Your task to perform on an android device: refresh tabs in the chrome app Image 0: 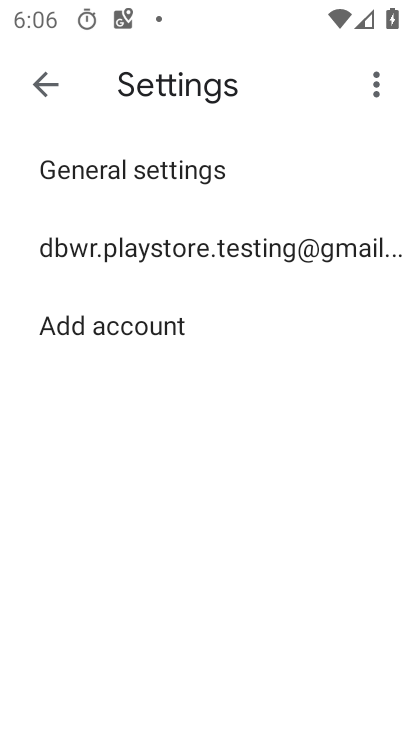
Step 0: press home button
Your task to perform on an android device: refresh tabs in the chrome app Image 1: 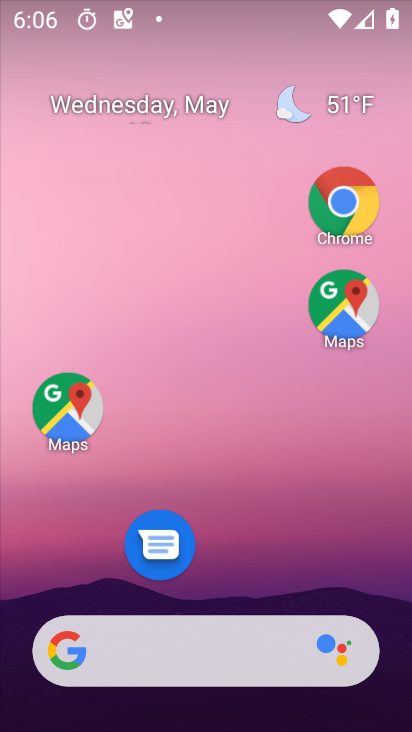
Step 1: drag from (252, 562) to (403, 382)
Your task to perform on an android device: refresh tabs in the chrome app Image 2: 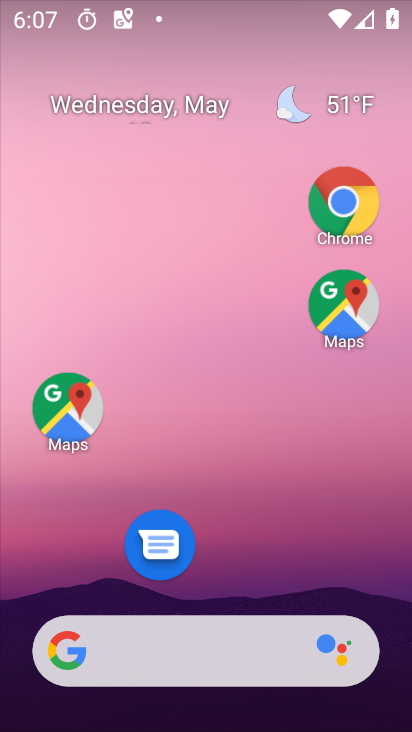
Step 2: click (343, 222)
Your task to perform on an android device: refresh tabs in the chrome app Image 3: 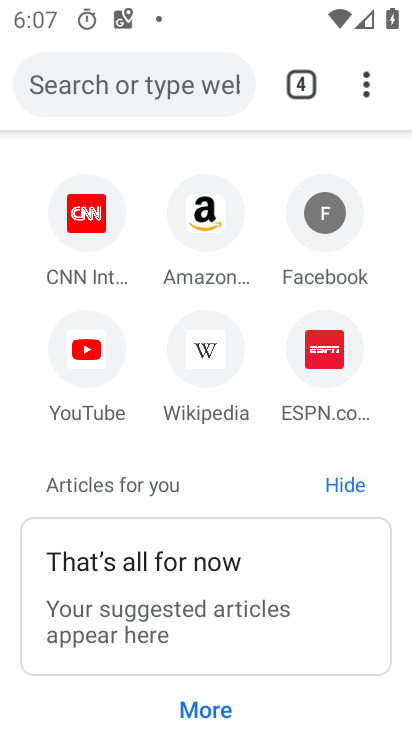
Step 3: click (369, 82)
Your task to perform on an android device: refresh tabs in the chrome app Image 4: 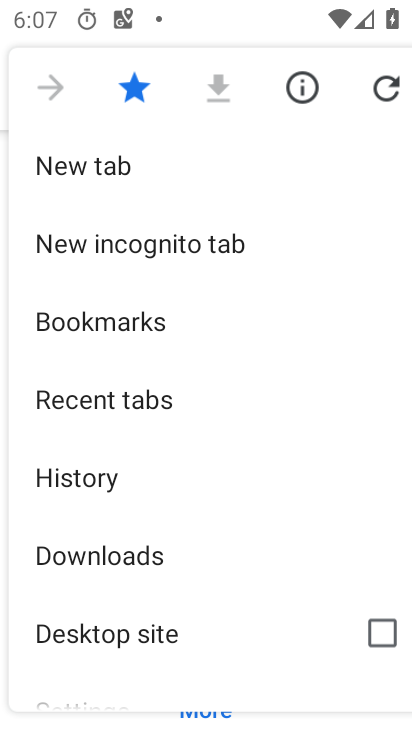
Step 4: click (365, 101)
Your task to perform on an android device: refresh tabs in the chrome app Image 5: 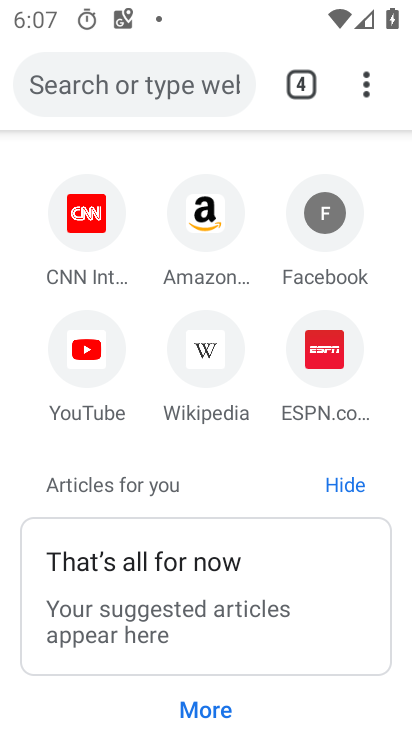
Step 5: task complete